Your task to perform on an android device: Go to wifi settings Image 0: 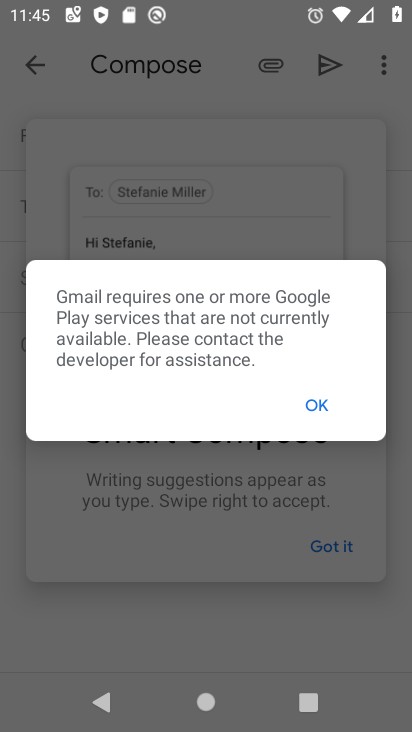
Step 0: press home button
Your task to perform on an android device: Go to wifi settings Image 1: 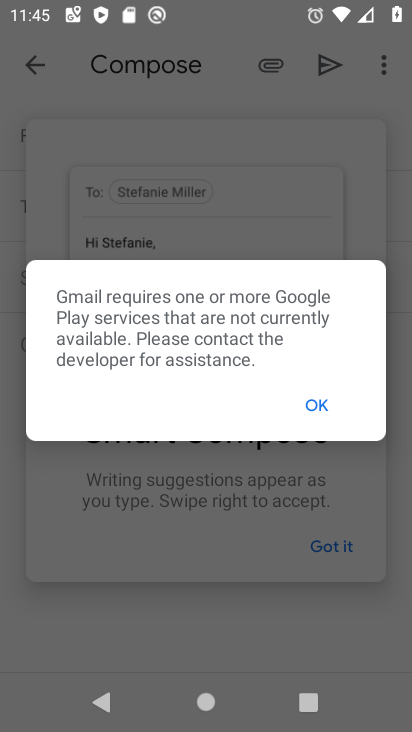
Step 1: press home button
Your task to perform on an android device: Go to wifi settings Image 2: 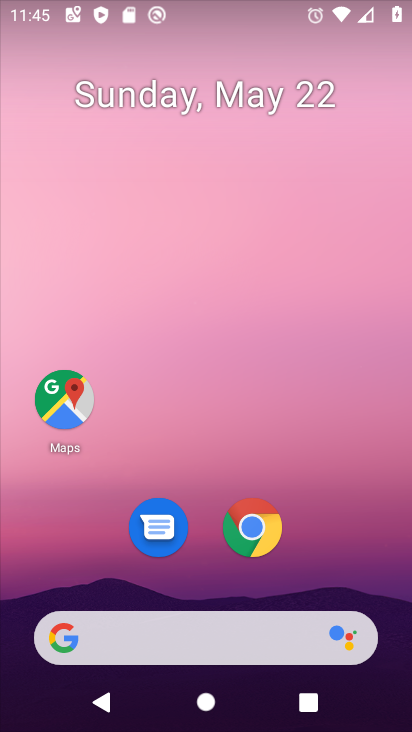
Step 2: drag from (367, 567) to (350, 40)
Your task to perform on an android device: Go to wifi settings Image 3: 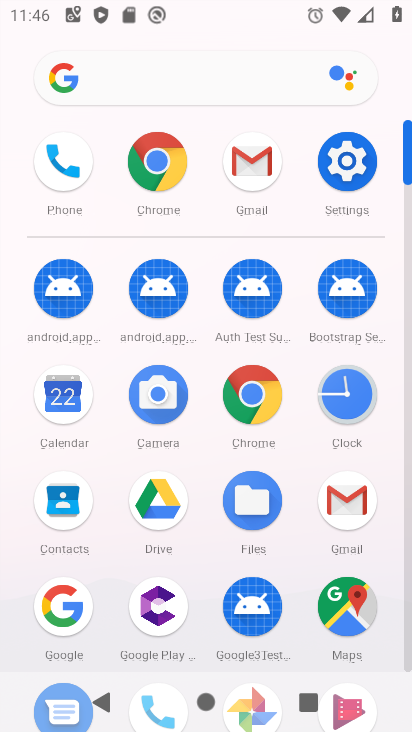
Step 3: click (330, 186)
Your task to perform on an android device: Go to wifi settings Image 4: 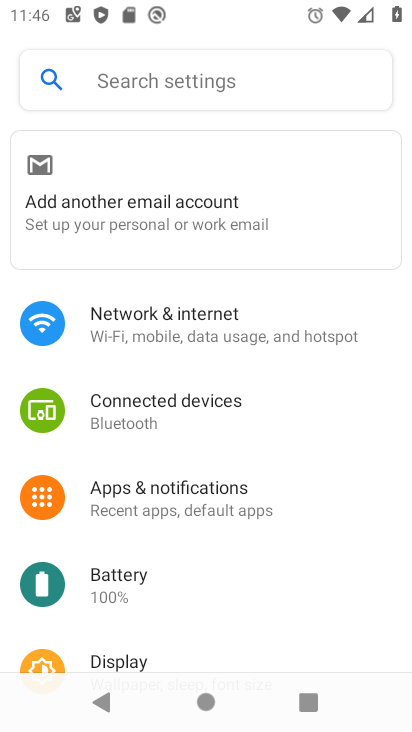
Step 4: click (196, 319)
Your task to perform on an android device: Go to wifi settings Image 5: 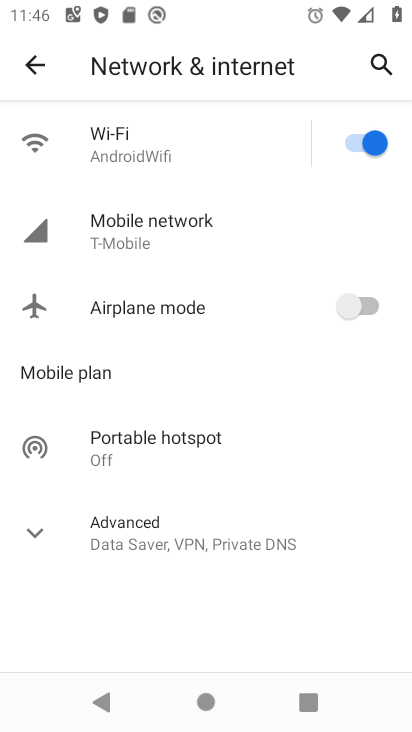
Step 5: click (134, 144)
Your task to perform on an android device: Go to wifi settings Image 6: 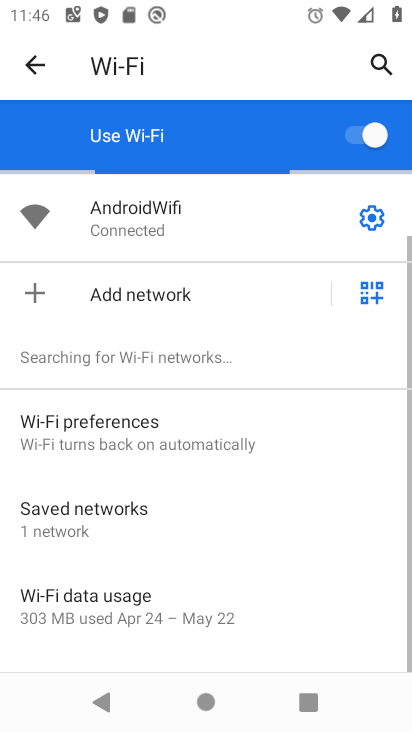
Step 6: task complete